Your task to perform on an android device: Turn on the flashlight Image 0: 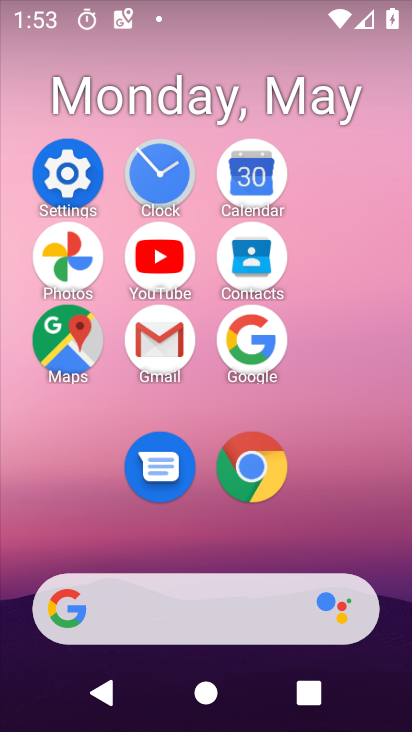
Step 0: drag from (251, 12) to (242, 385)
Your task to perform on an android device: Turn on the flashlight Image 1: 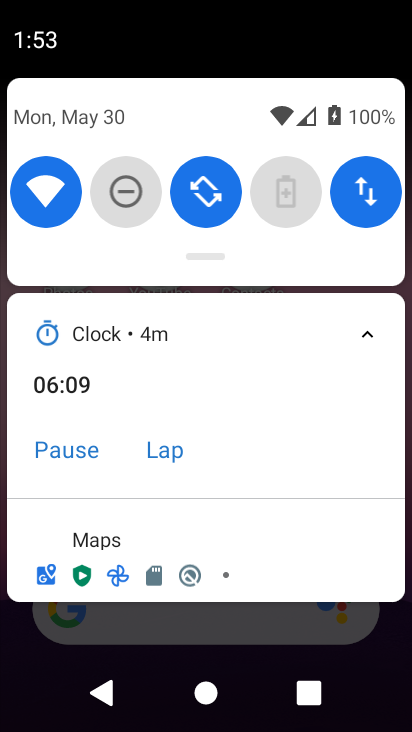
Step 1: task complete